Your task to perform on an android device: turn off location Image 0: 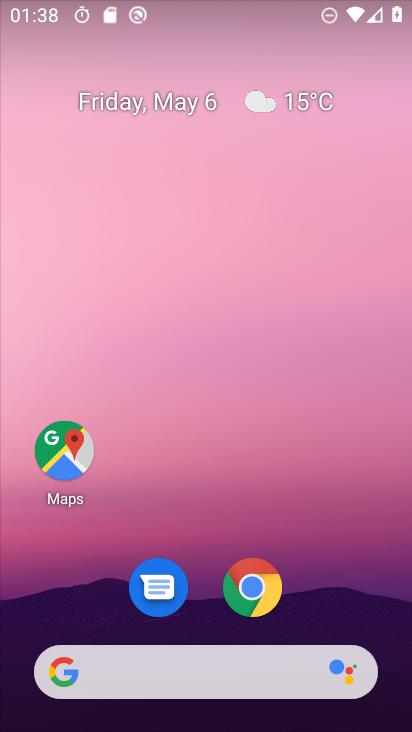
Step 0: drag from (395, 646) to (309, 180)
Your task to perform on an android device: turn off location Image 1: 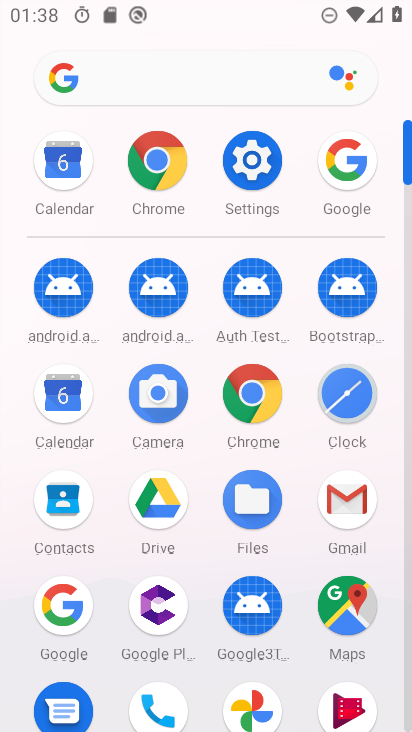
Step 1: click (242, 169)
Your task to perform on an android device: turn off location Image 2: 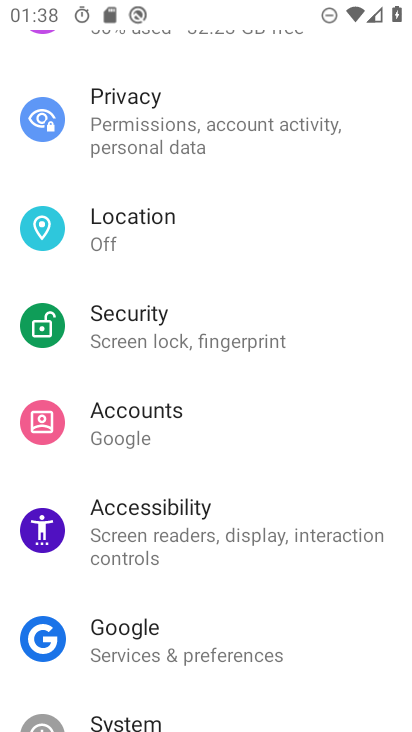
Step 2: drag from (364, 638) to (335, 383)
Your task to perform on an android device: turn off location Image 3: 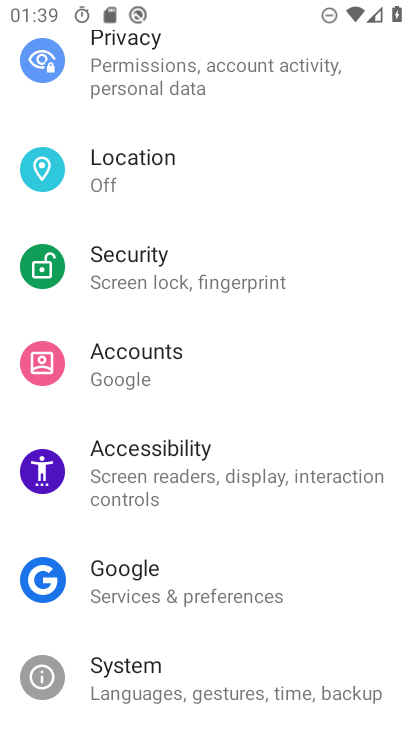
Step 3: click (106, 168)
Your task to perform on an android device: turn off location Image 4: 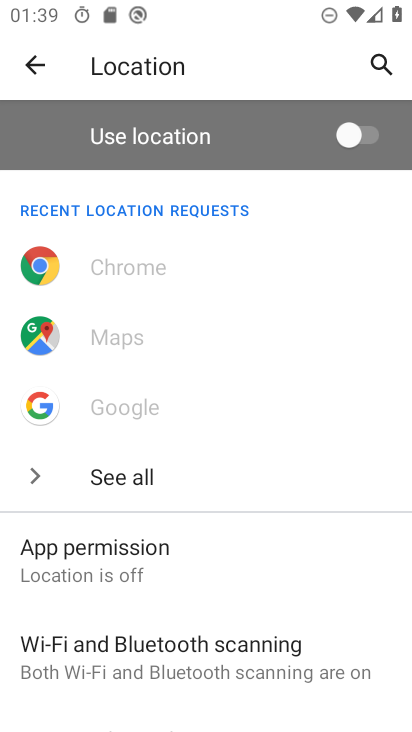
Step 4: task complete